Your task to perform on an android device: toggle show notifications on the lock screen Image 0: 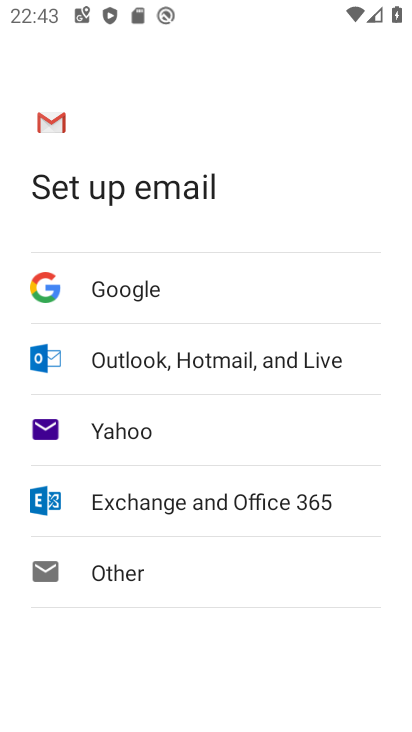
Step 0: press home button
Your task to perform on an android device: toggle show notifications on the lock screen Image 1: 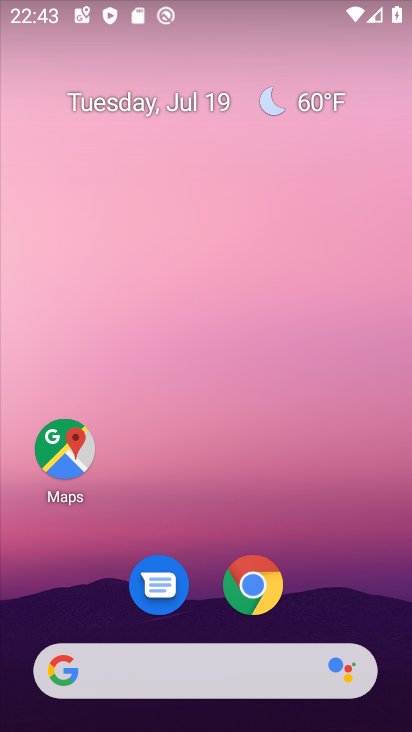
Step 1: drag from (320, 561) to (308, 43)
Your task to perform on an android device: toggle show notifications on the lock screen Image 2: 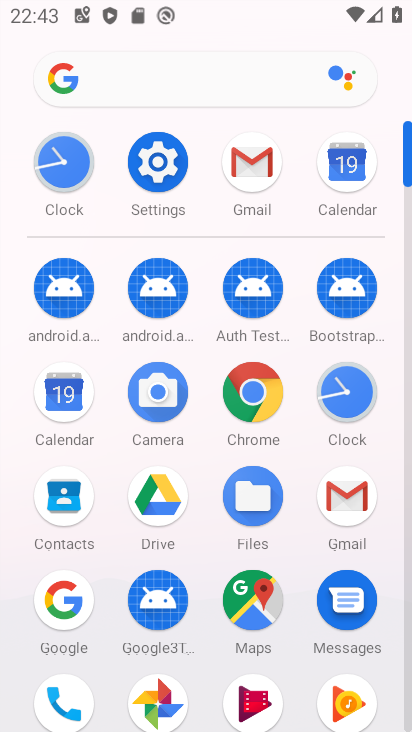
Step 2: click (167, 154)
Your task to perform on an android device: toggle show notifications on the lock screen Image 3: 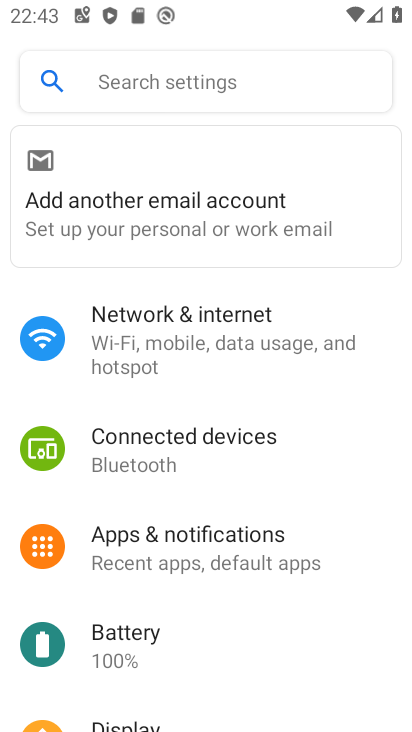
Step 3: click (221, 552)
Your task to perform on an android device: toggle show notifications on the lock screen Image 4: 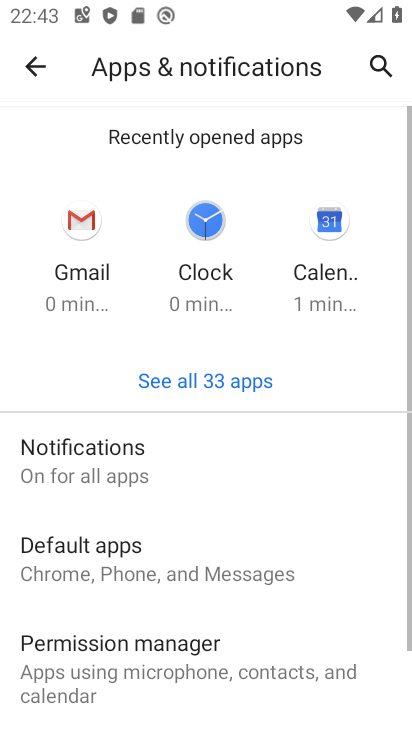
Step 4: click (68, 481)
Your task to perform on an android device: toggle show notifications on the lock screen Image 5: 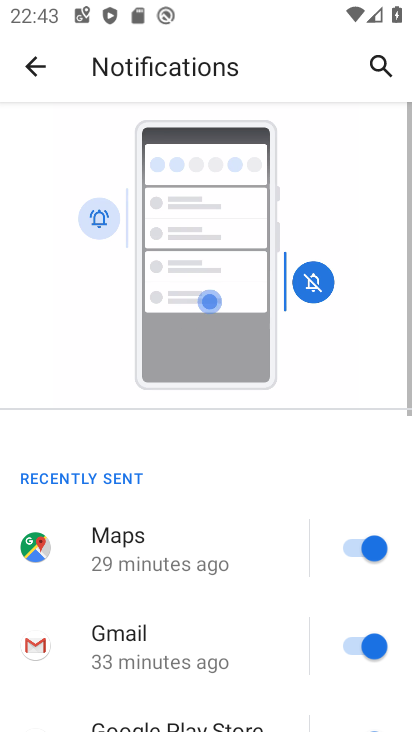
Step 5: drag from (222, 472) to (213, 35)
Your task to perform on an android device: toggle show notifications on the lock screen Image 6: 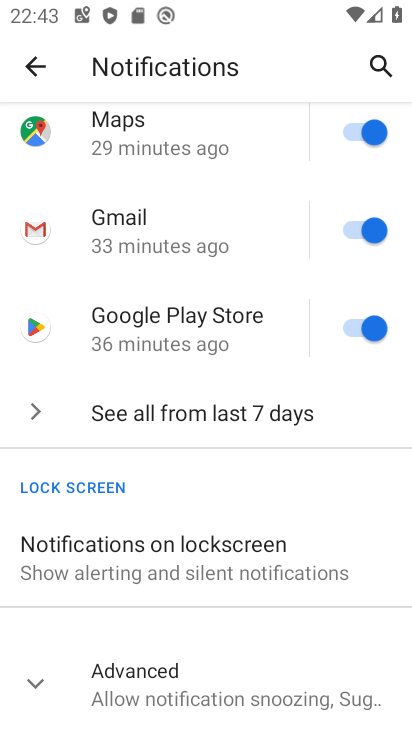
Step 6: click (197, 554)
Your task to perform on an android device: toggle show notifications on the lock screen Image 7: 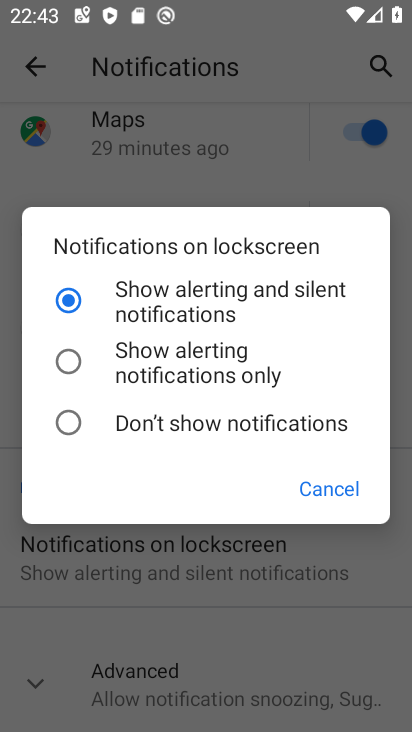
Step 7: click (68, 419)
Your task to perform on an android device: toggle show notifications on the lock screen Image 8: 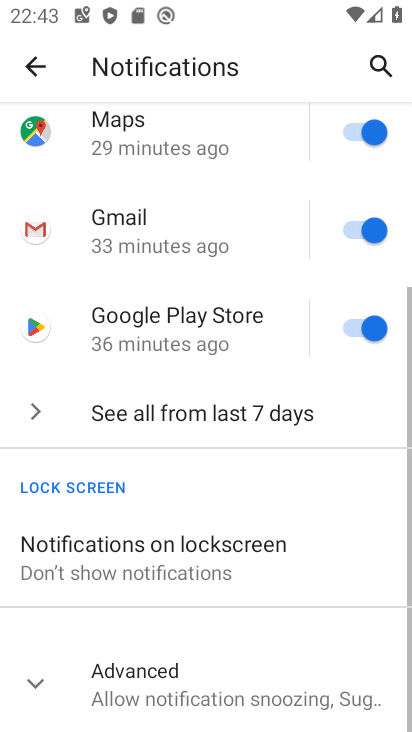
Step 8: task complete